Your task to perform on an android device: check google app version Image 0: 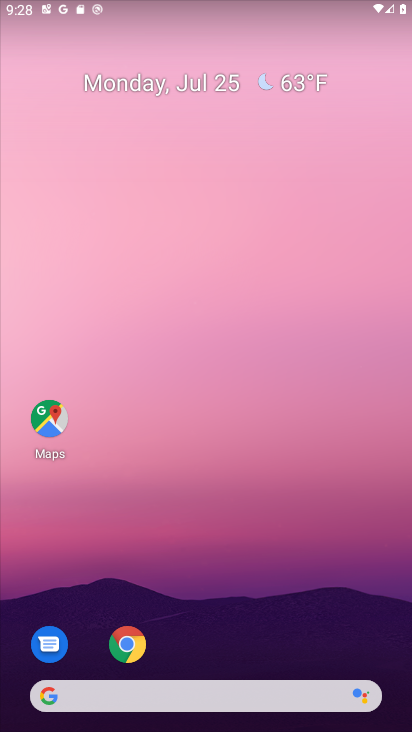
Step 0: drag from (254, 615) to (254, 221)
Your task to perform on an android device: check google app version Image 1: 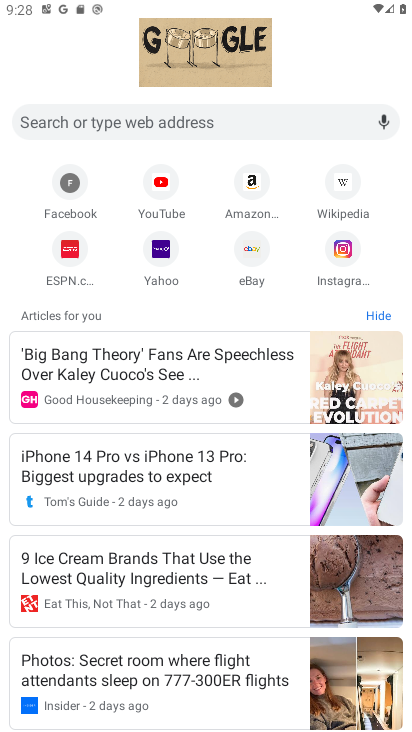
Step 1: press back button
Your task to perform on an android device: check google app version Image 2: 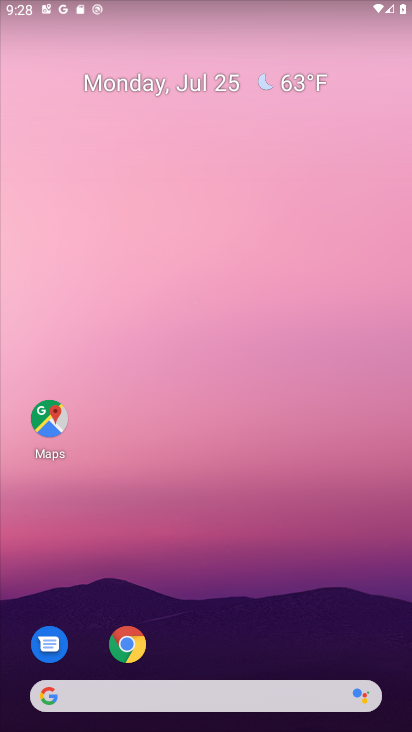
Step 2: drag from (226, 573) to (226, 154)
Your task to perform on an android device: check google app version Image 3: 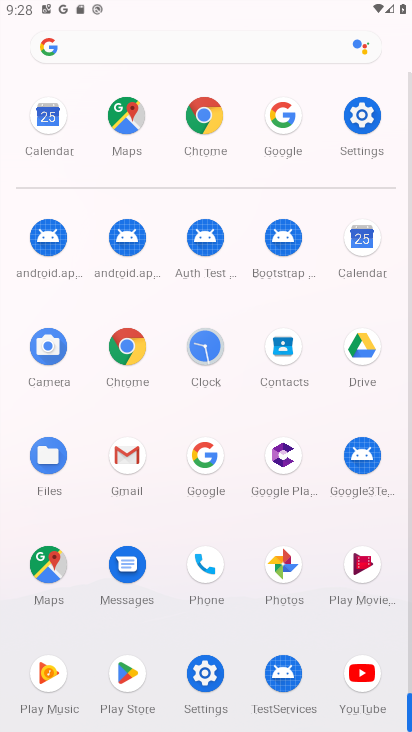
Step 3: click (123, 351)
Your task to perform on an android device: check google app version Image 4: 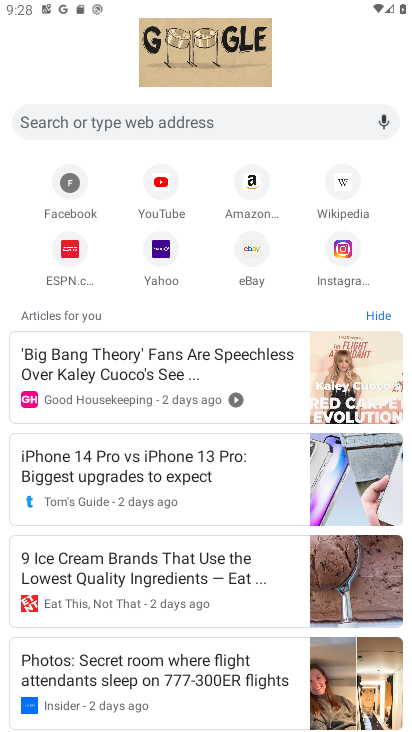
Step 4: press back button
Your task to perform on an android device: check google app version Image 5: 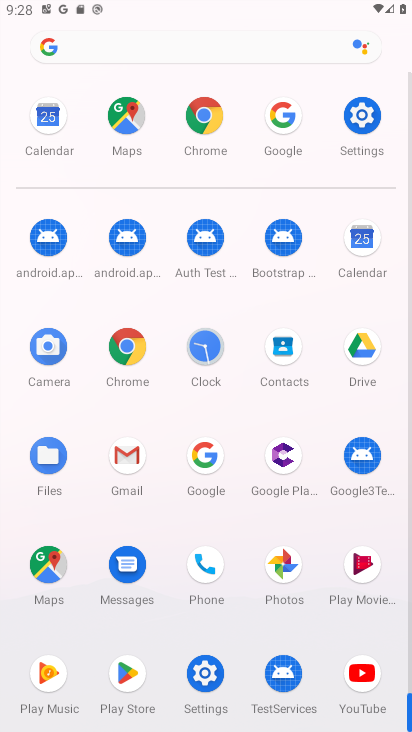
Step 5: click (201, 463)
Your task to perform on an android device: check google app version Image 6: 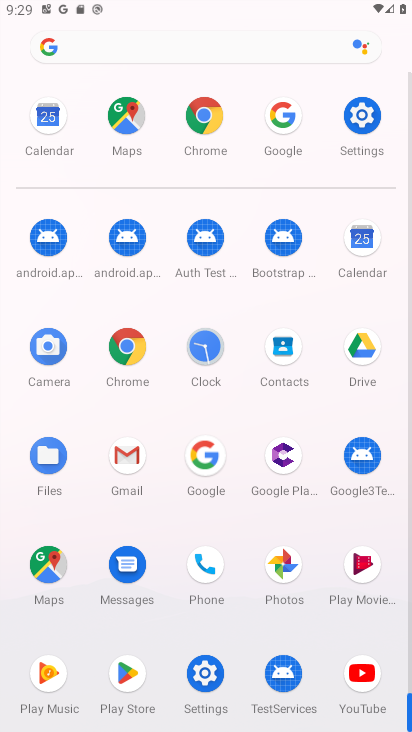
Step 6: click (207, 461)
Your task to perform on an android device: check google app version Image 7: 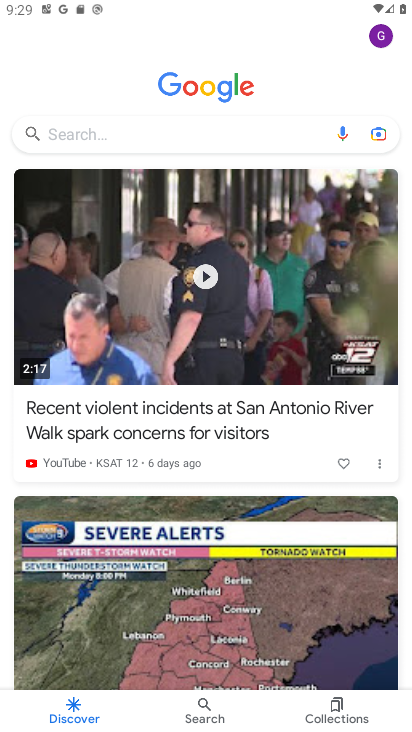
Step 7: drag from (300, 118) to (282, 434)
Your task to perform on an android device: check google app version Image 8: 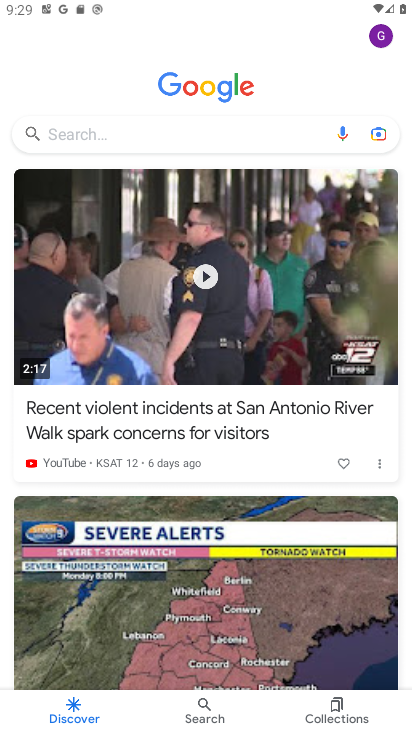
Step 8: click (378, 47)
Your task to perform on an android device: check google app version Image 9: 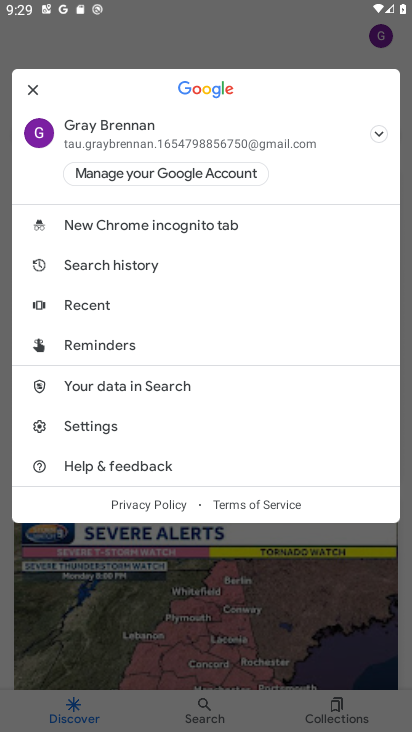
Step 9: click (381, 38)
Your task to perform on an android device: check google app version Image 10: 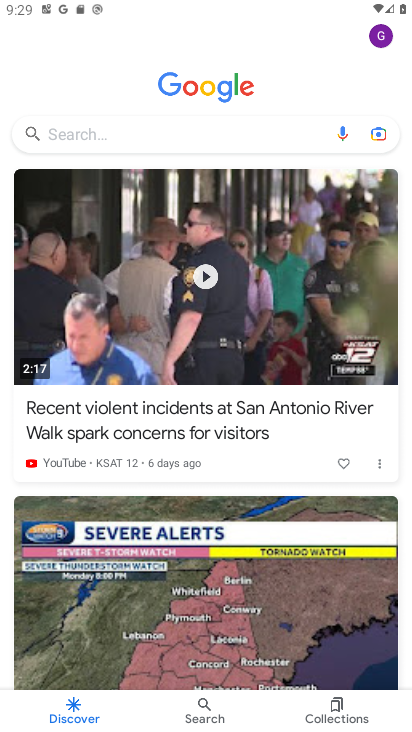
Step 10: click (385, 34)
Your task to perform on an android device: check google app version Image 11: 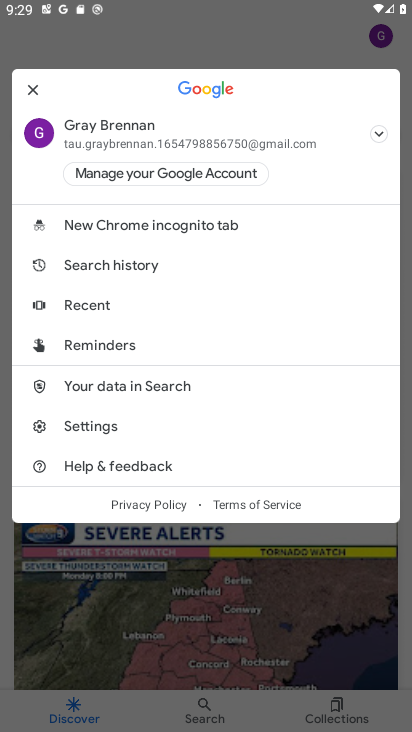
Step 11: click (91, 426)
Your task to perform on an android device: check google app version Image 12: 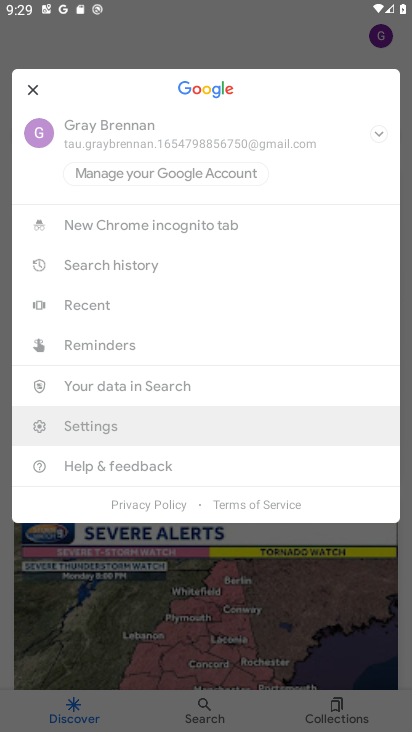
Step 12: click (91, 426)
Your task to perform on an android device: check google app version Image 13: 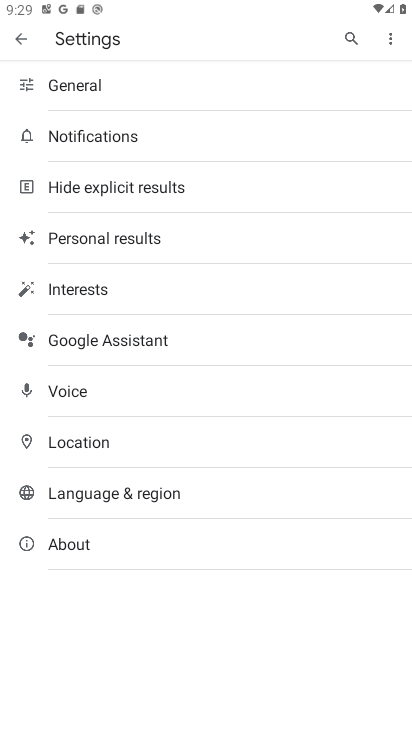
Step 13: click (77, 548)
Your task to perform on an android device: check google app version Image 14: 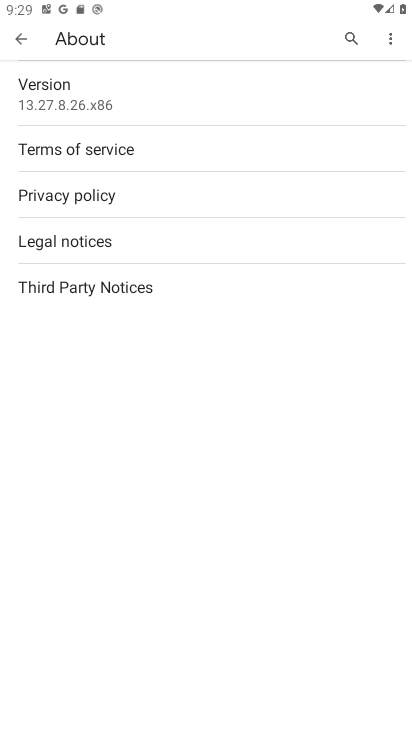
Step 14: click (67, 88)
Your task to perform on an android device: check google app version Image 15: 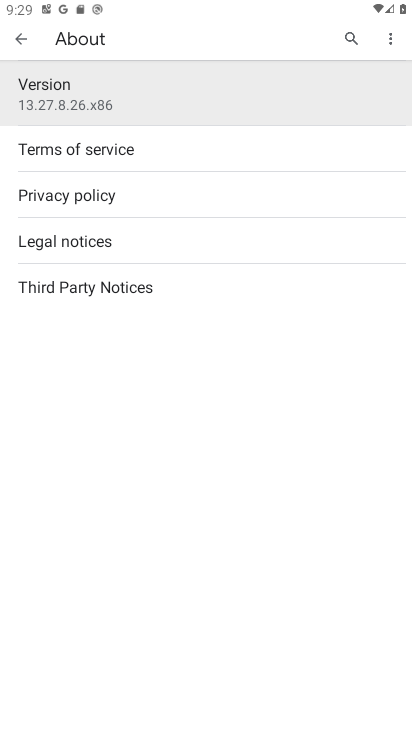
Step 15: click (74, 86)
Your task to perform on an android device: check google app version Image 16: 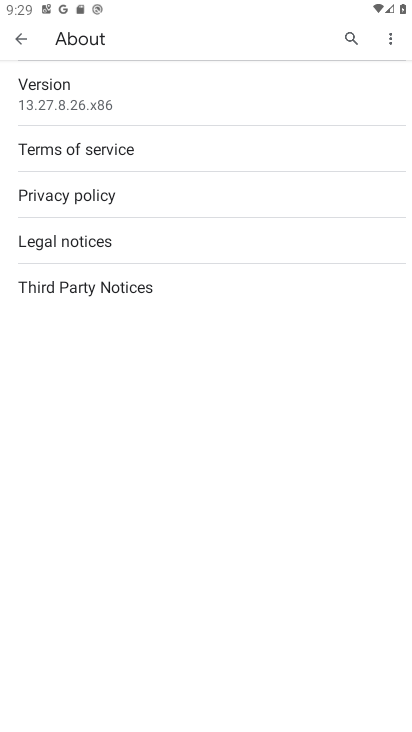
Step 16: task complete